Your task to perform on an android device: choose inbox layout in the gmail app Image 0: 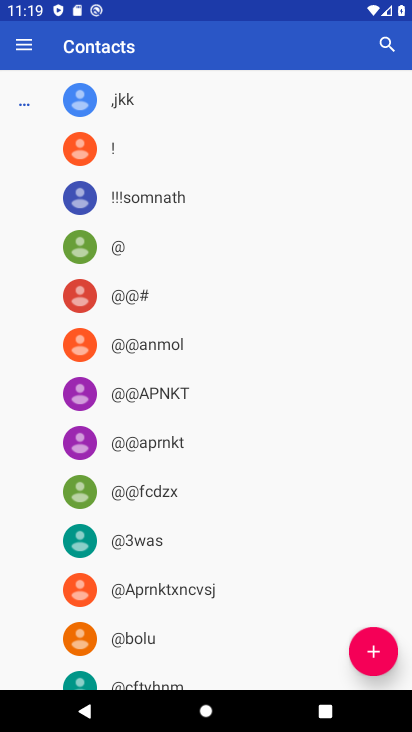
Step 0: press home button
Your task to perform on an android device: choose inbox layout in the gmail app Image 1: 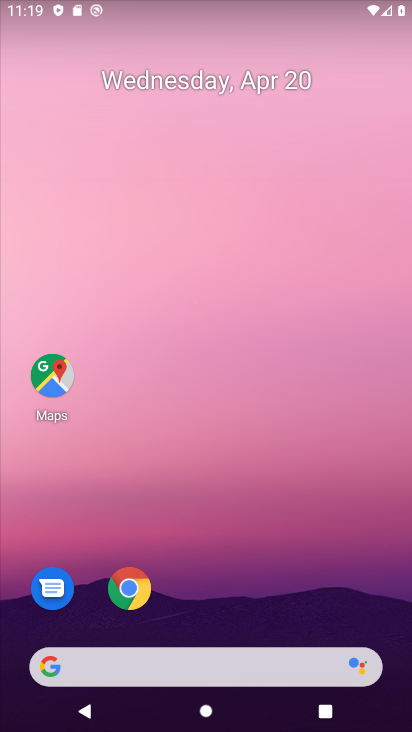
Step 1: drag from (229, 478) to (236, 99)
Your task to perform on an android device: choose inbox layout in the gmail app Image 2: 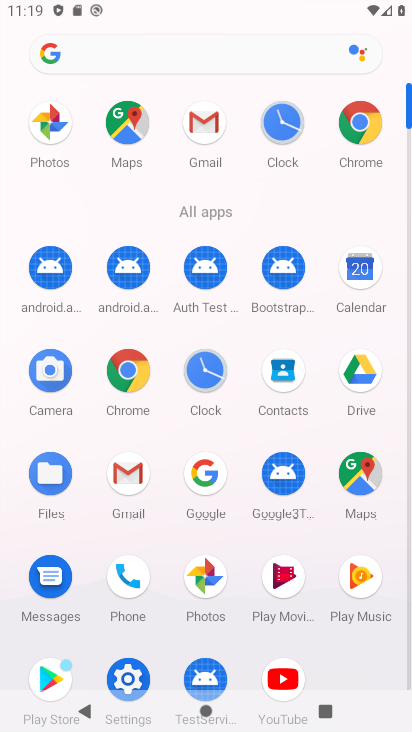
Step 2: click (204, 131)
Your task to perform on an android device: choose inbox layout in the gmail app Image 3: 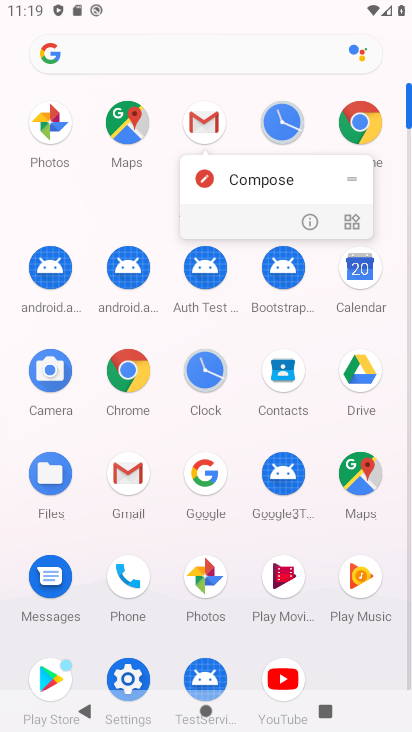
Step 3: click (202, 120)
Your task to perform on an android device: choose inbox layout in the gmail app Image 4: 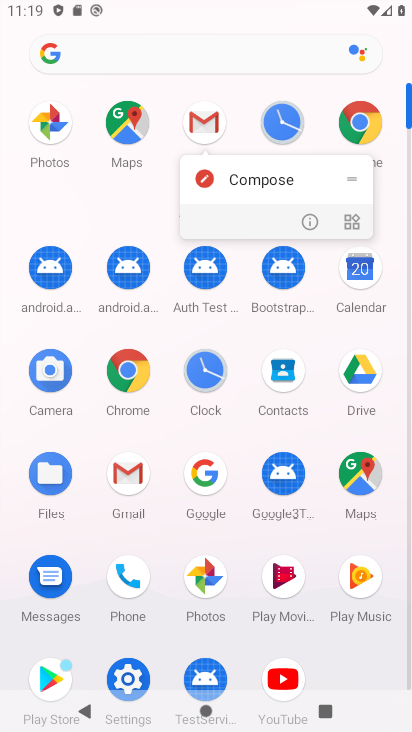
Step 4: click (203, 129)
Your task to perform on an android device: choose inbox layout in the gmail app Image 5: 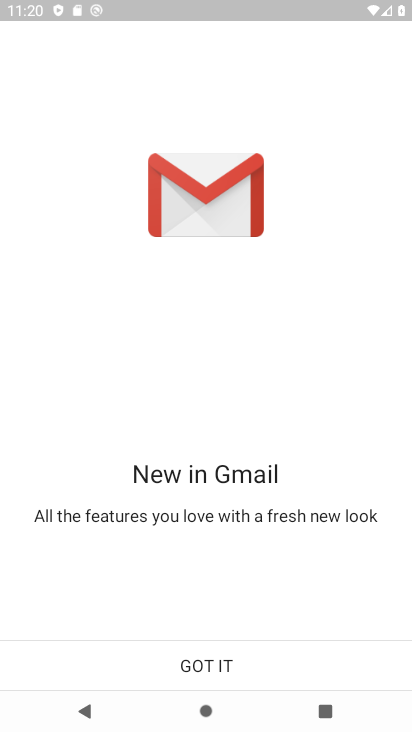
Step 5: click (198, 659)
Your task to perform on an android device: choose inbox layout in the gmail app Image 6: 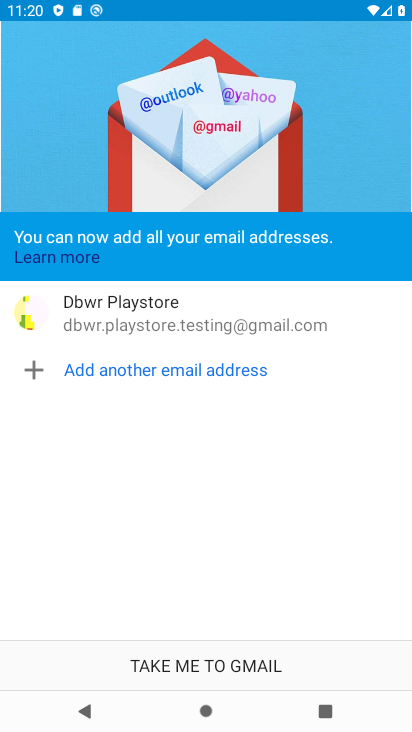
Step 6: click (198, 659)
Your task to perform on an android device: choose inbox layout in the gmail app Image 7: 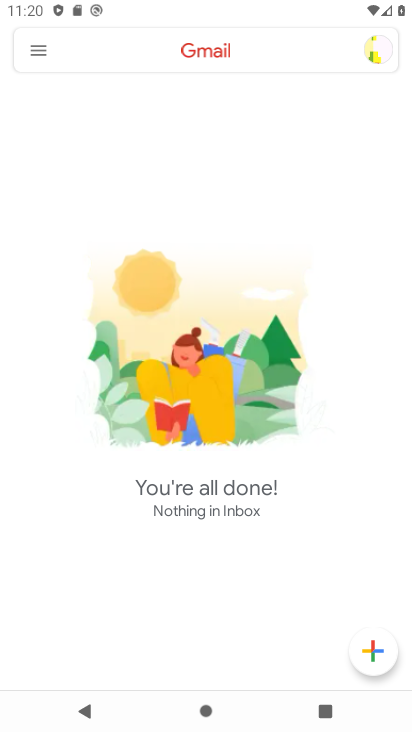
Step 7: click (30, 50)
Your task to perform on an android device: choose inbox layout in the gmail app Image 8: 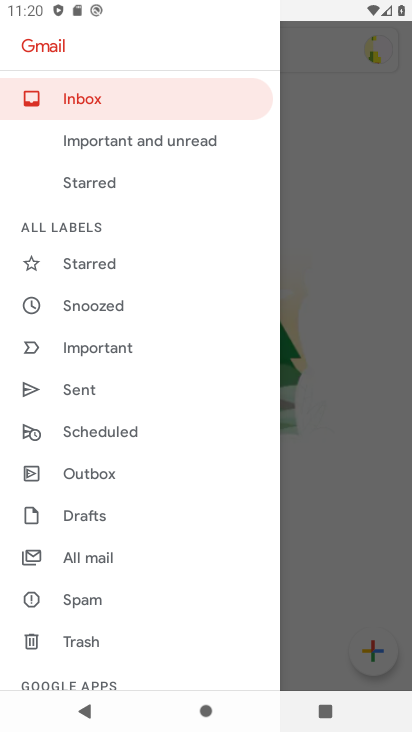
Step 8: task complete